Your task to perform on an android device: change the clock display to analog Image 0: 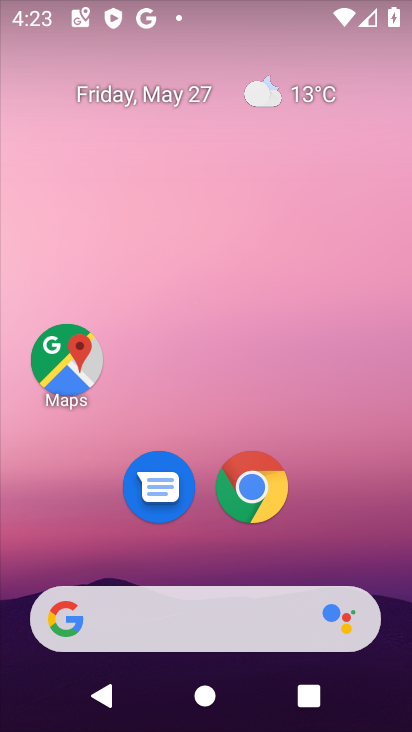
Step 0: drag from (329, 495) to (276, 60)
Your task to perform on an android device: change the clock display to analog Image 1: 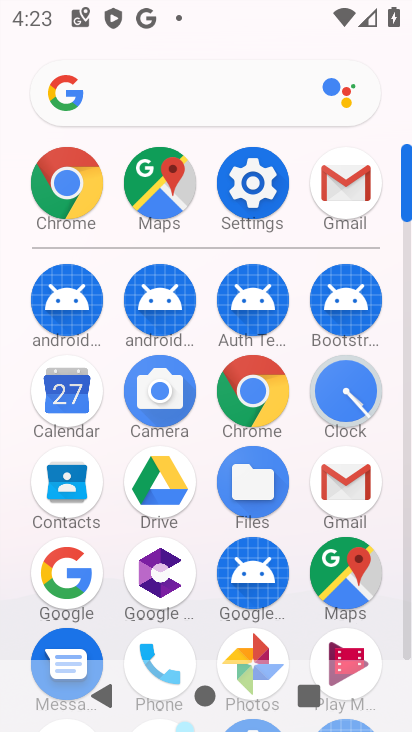
Step 1: click (344, 388)
Your task to perform on an android device: change the clock display to analog Image 2: 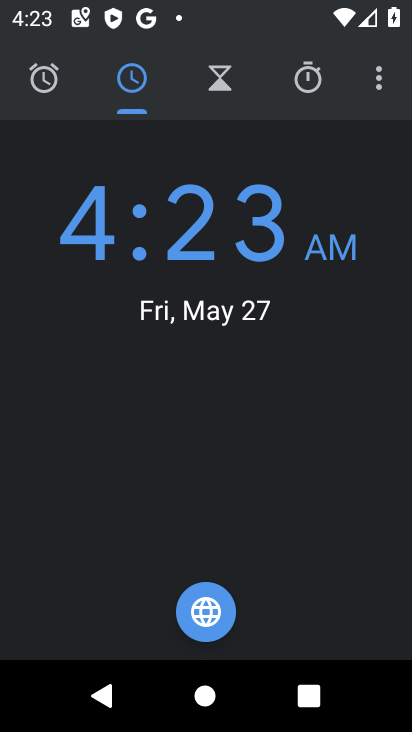
Step 2: click (381, 77)
Your task to perform on an android device: change the clock display to analog Image 3: 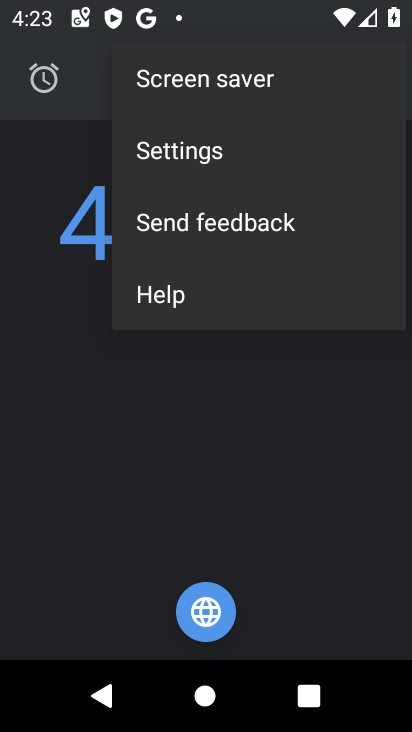
Step 3: click (188, 134)
Your task to perform on an android device: change the clock display to analog Image 4: 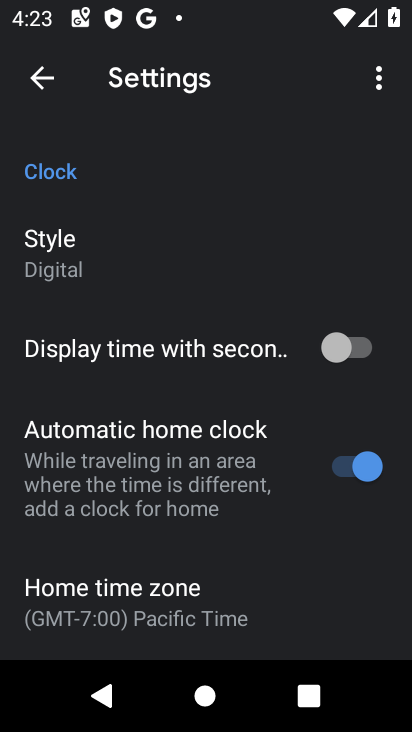
Step 4: click (82, 248)
Your task to perform on an android device: change the clock display to analog Image 5: 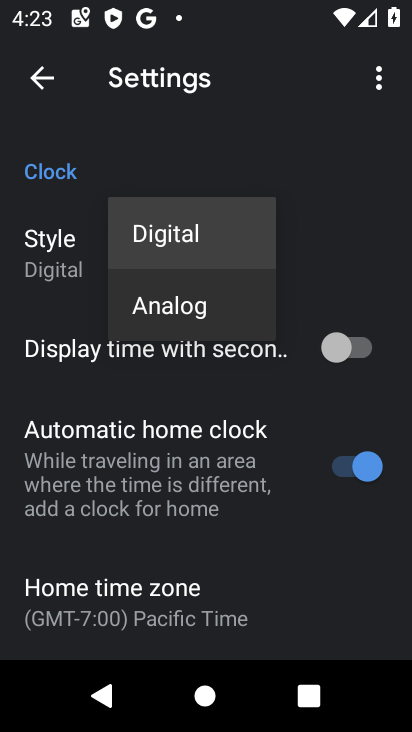
Step 5: click (160, 311)
Your task to perform on an android device: change the clock display to analog Image 6: 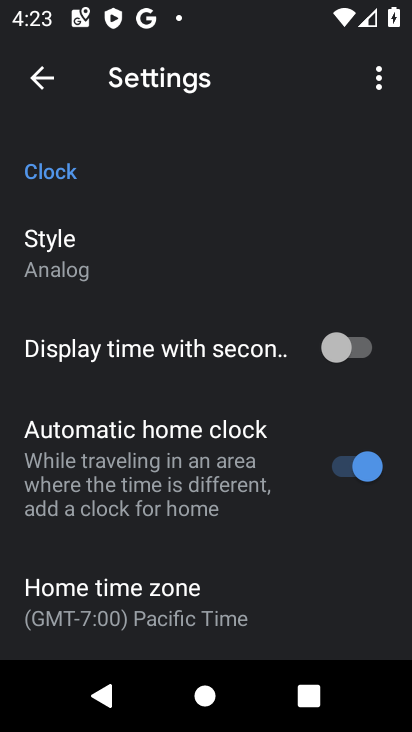
Step 6: task complete